Your task to perform on an android device: What's the weather going to be this weekend? Image 0: 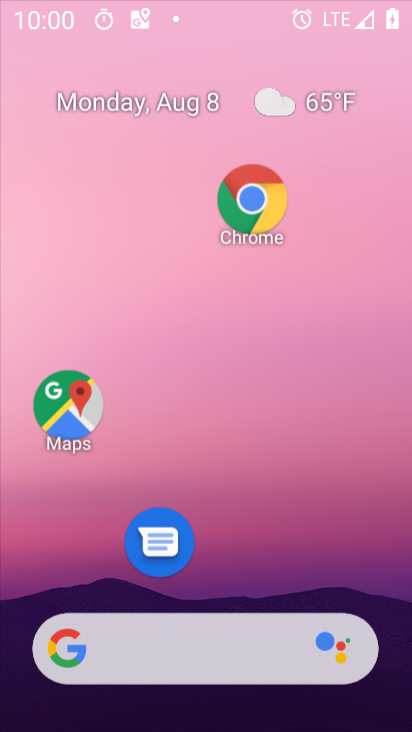
Step 0: press home button
Your task to perform on an android device: What's the weather going to be this weekend? Image 1: 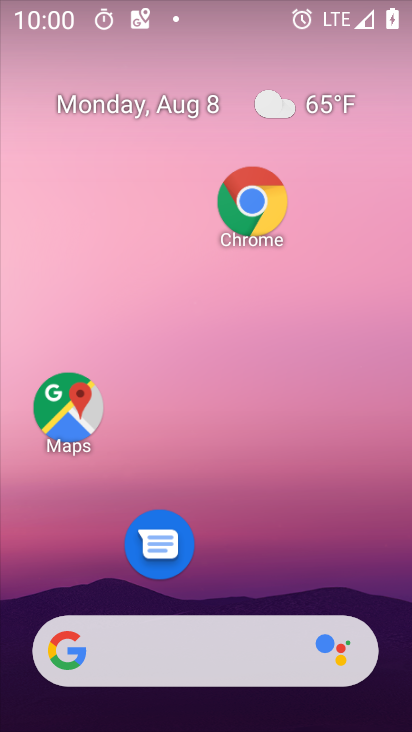
Step 1: click (319, 102)
Your task to perform on an android device: What's the weather going to be this weekend? Image 2: 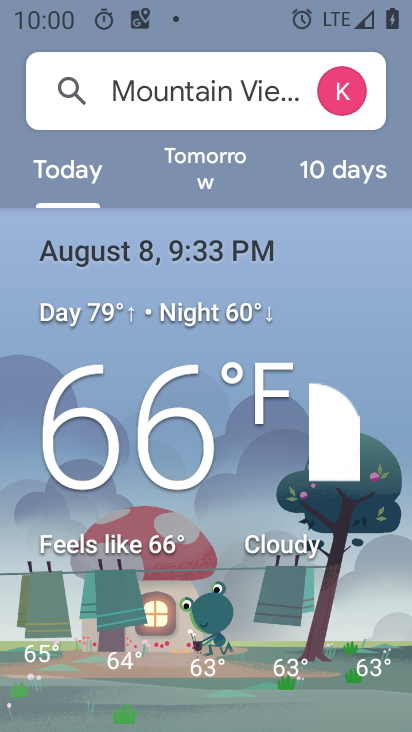
Step 2: click (346, 172)
Your task to perform on an android device: What's the weather going to be this weekend? Image 3: 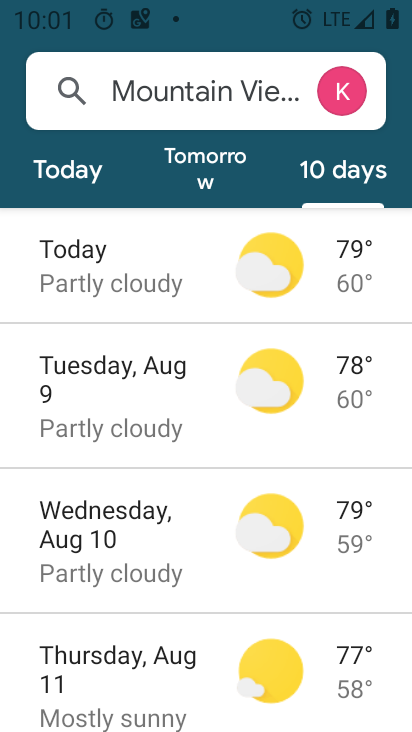
Step 3: drag from (167, 627) to (196, 227)
Your task to perform on an android device: What's the weather going to be this weekend? Image 4: 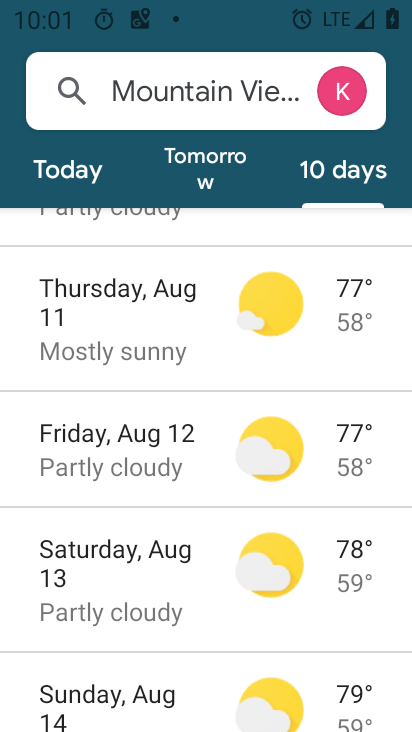
Step 4: drag from (175, 607) to (179, 329)
Your task to perform on an android device: What's the weather going to be this weekend? Image 5: 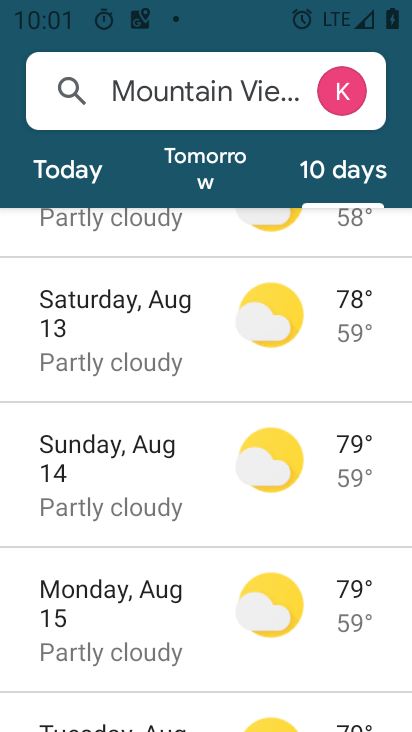
Step 5: click (123, 332)
Your task to perform on an android device: What's the weather going to be this weekend? Image 6: 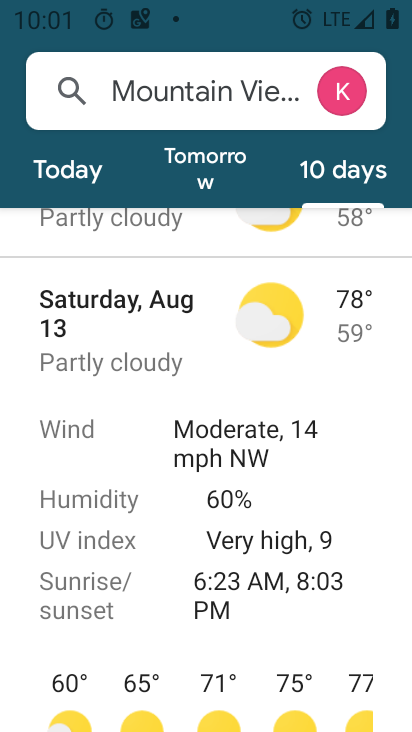
Step 6: drag from (150, 614) to (198, 243)
Your task to perform on an android device: What's the weather going to be this weekend? Image 7: 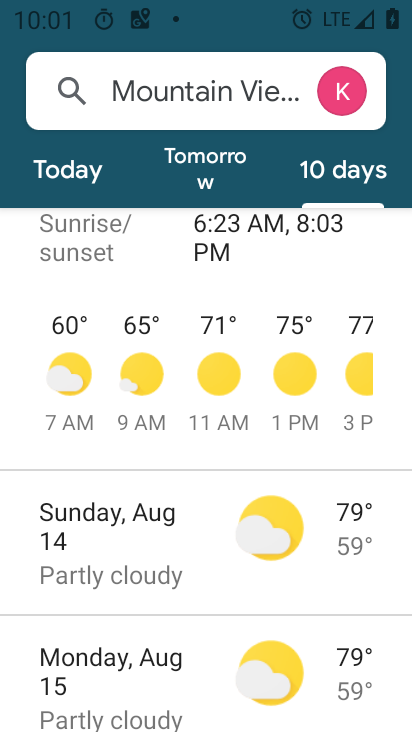
Step 7: click (178, 533)
Your task to perform on an android device: What's the weather going to be this weekend? Image 8: 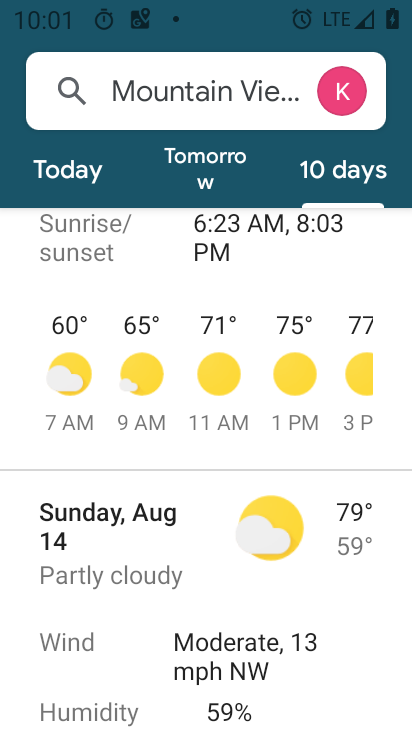
Step 8: task complete